Your task to perform on an android device: toggle notification dots Image 0: 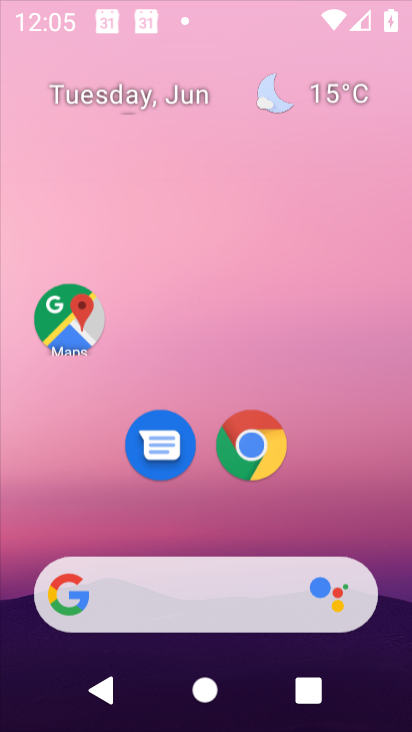
Step 0: click (222, 66)
Your task to perform on an android device: toggle notification dots Image 1: 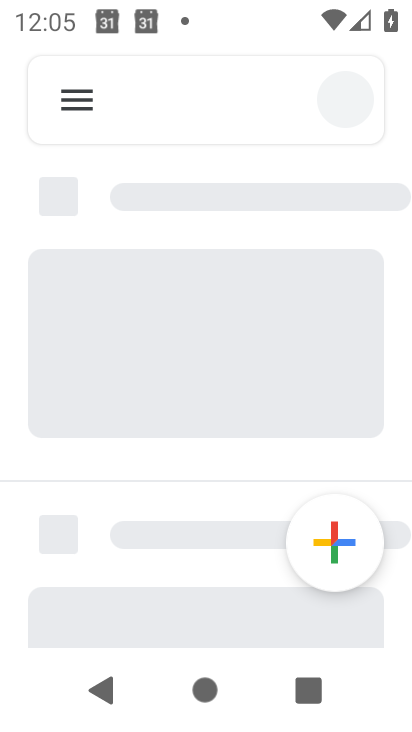
Step 1: drag from (81, 494) to (110, 78)
Your task to perform on an android device: toggle notification dots Image 2: 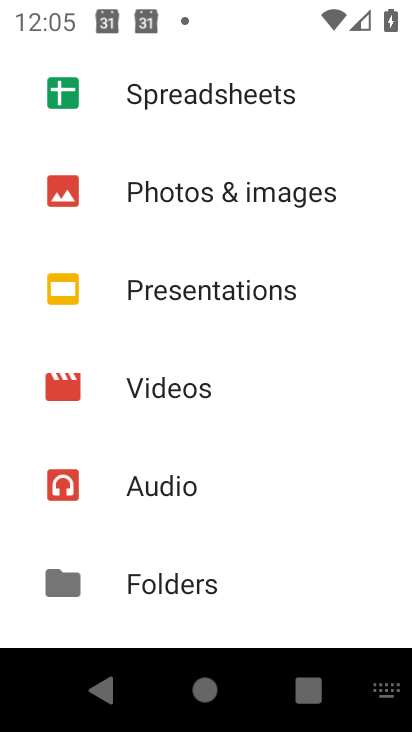
Step 2: press home button
Your task to perform on an android device: toggle notification dots Image 3: 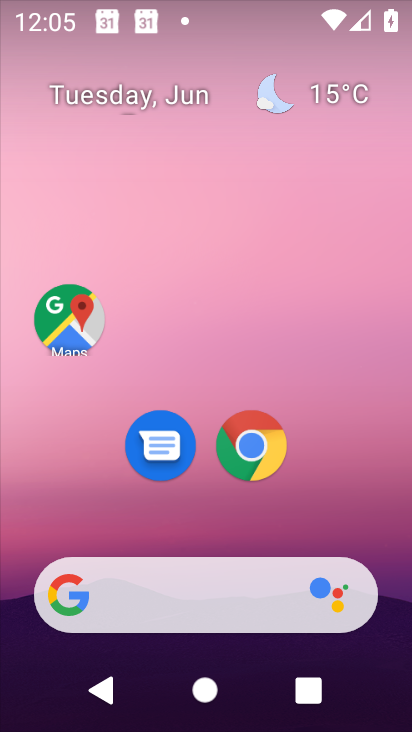
Step 3: drag from (183, 498) to (204, 37)
Your task to perform on an android device: toggle notification dots Image 4: 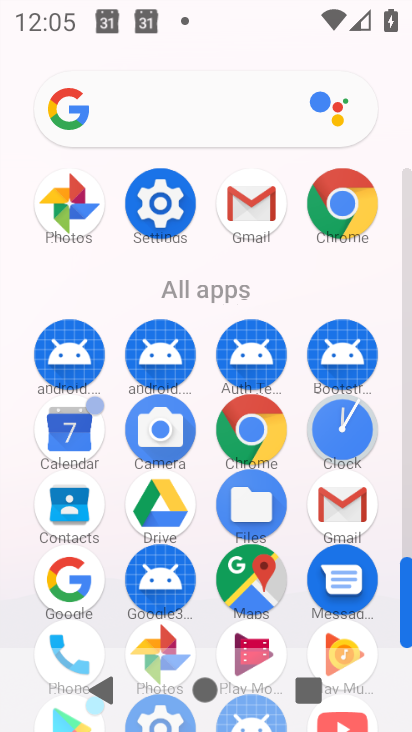
Step 4: click (147, 207)
Your task to perform on an android device: toggle notification dots Image 5: 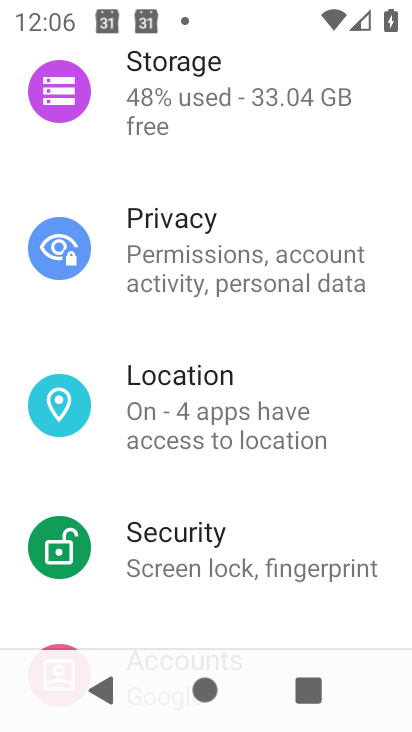
Step 5: drag from (171, 125) to (159, 518)
Your task to perform on an android device: toggle notification dots Image 6: 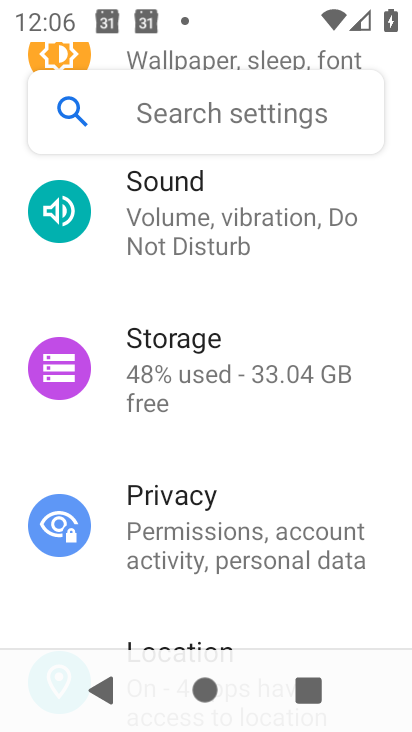
Step 6: drag from (113, 226) to (104, 617)
Your task to perform on an android device: toggle notification dots Image 7: 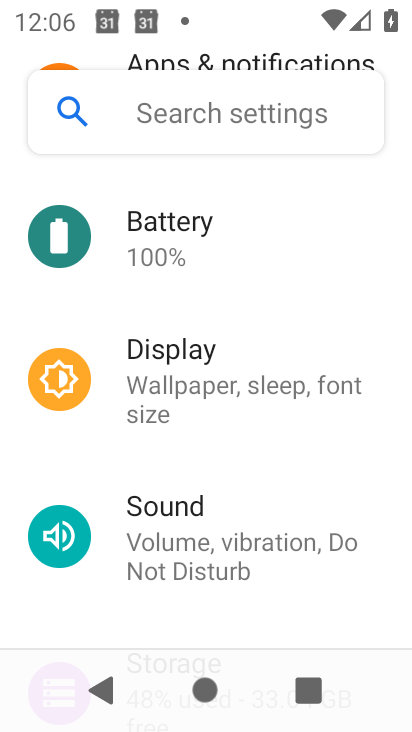
Step 7: drag from (147, 191) to (130, 592)
Your task to perform on an android device: toggle notification dots Image 8: 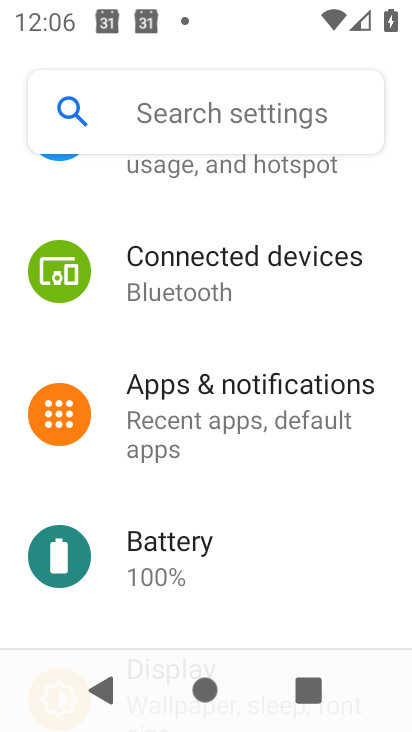
Step 8: click (117, 393)
Your task to perform on an android device: toggle notification dots Image 9: 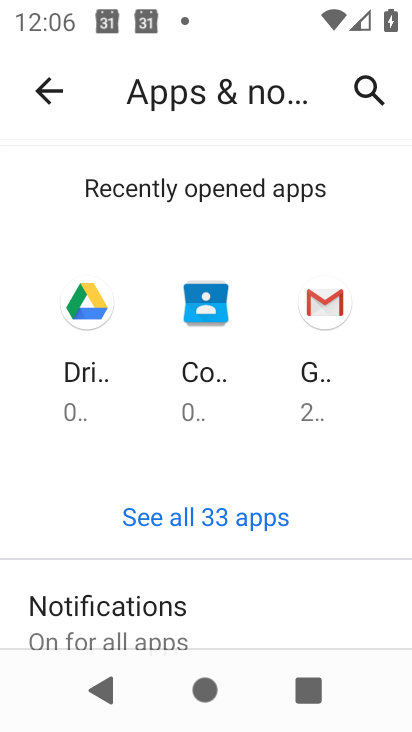
Step 9: drag from (97, 584) to (155, 79)
Your task to perform on an android device: toggle notification dots Image 10: 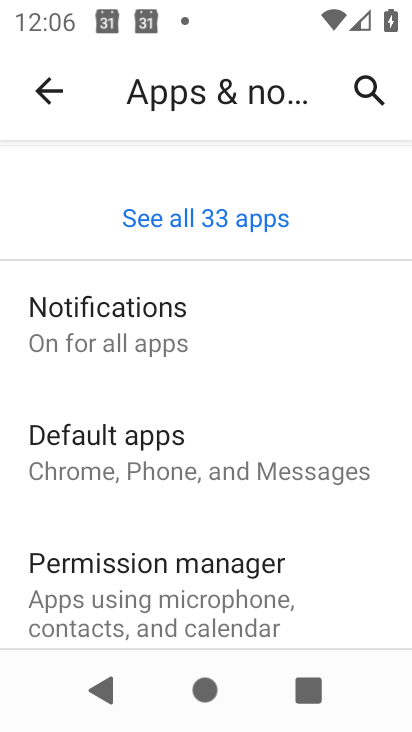
Step 10: click (151, 326)
Your task to perform on an android device: toggle notification dots Image 11: 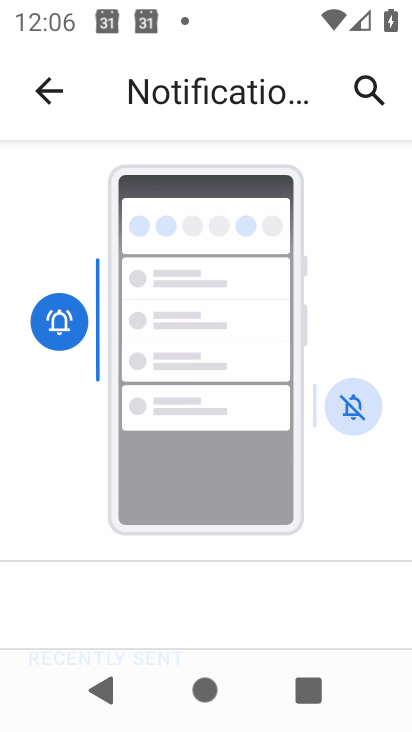
Step 11: drag from (155, 591) to (173, 20)
Your task to perform on an android device: toggle notification dots Image 12: 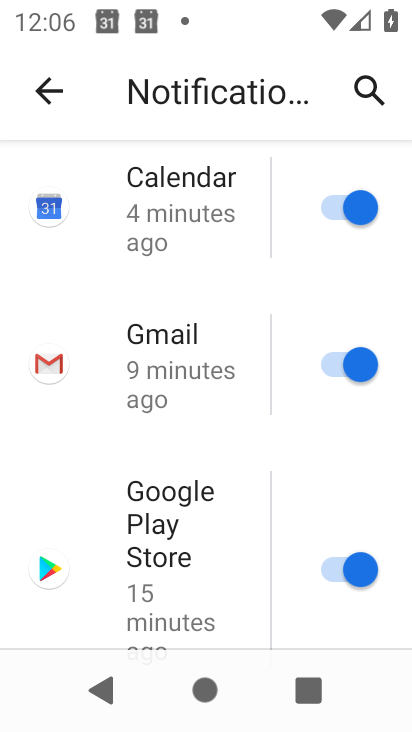
Step 12: drag from (159, 589) to (210, 134)
Your task to perform on an android device: toggle notification dots Image 13: 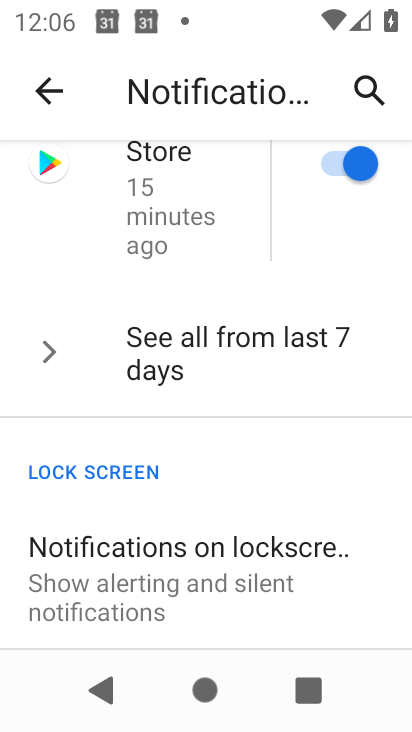
Step 13: drag from (46, 624) to (139, 42)
Your task to perform on an android device: toggle notification dots Image 14: 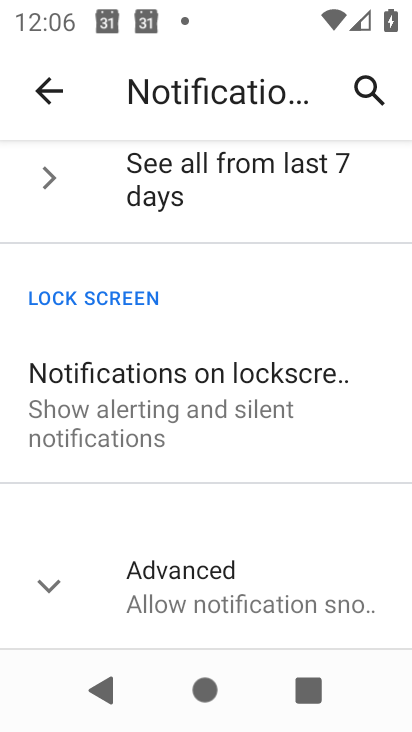
Step 14: click (201, 618)
Your task to perform on an android device: toggle notification dots Image 15: 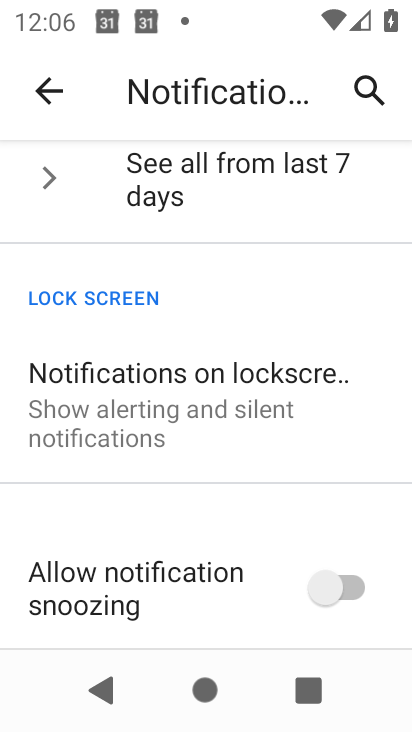
Step 15: drag from (201, 618) to (217, 58)
Your task to perform on an android device: toggle notification dots Image 16: 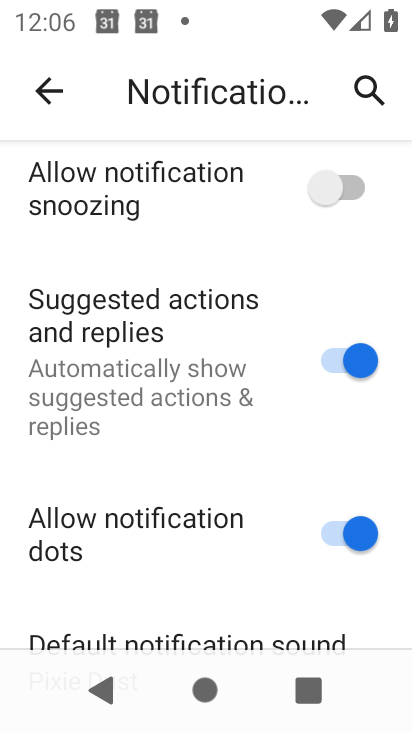
Step 16: click (326, 540)
Your task to perform on an android device: toggle notification dots Image 17: 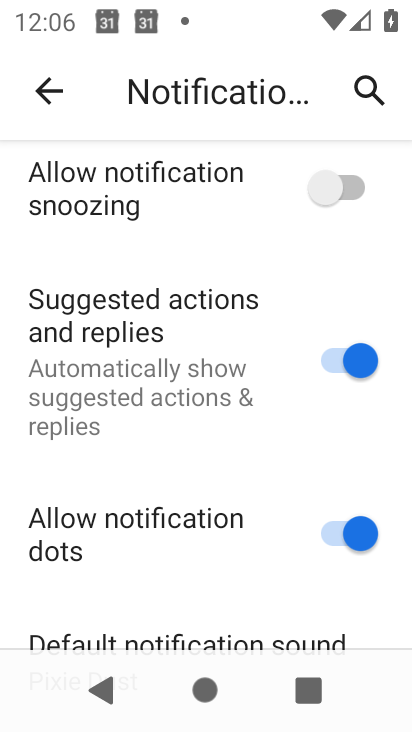
Step 17: click (326, 540)
Your task to perform on an android device: toggle notification dots Image 18: 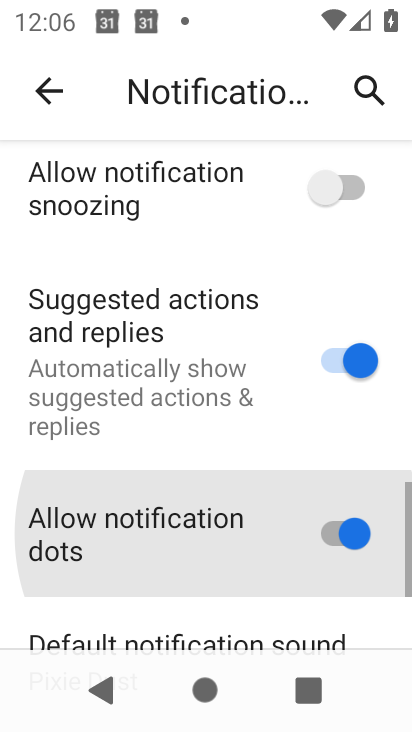
Step 18: click (326, 540)
Your task to perform on an android device: toggle notification dots Image 19: 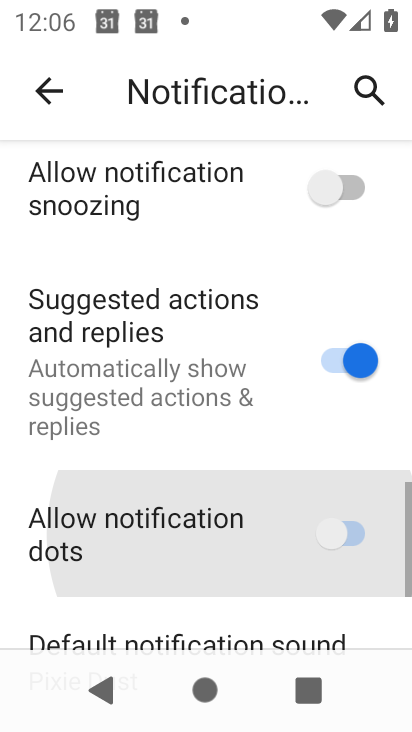
Step 19: click (326, 540)
Your task to perform on an android device: toggle notification dots Image 20: 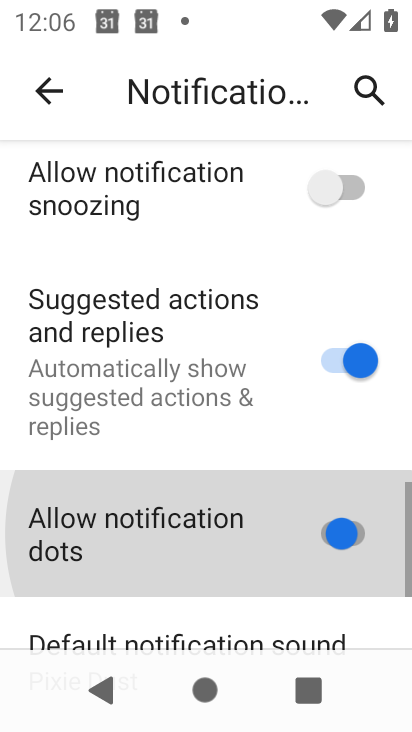
Step 20: click (326, 540)
Your task to perform on an android device: toggle notification dots Image 21: 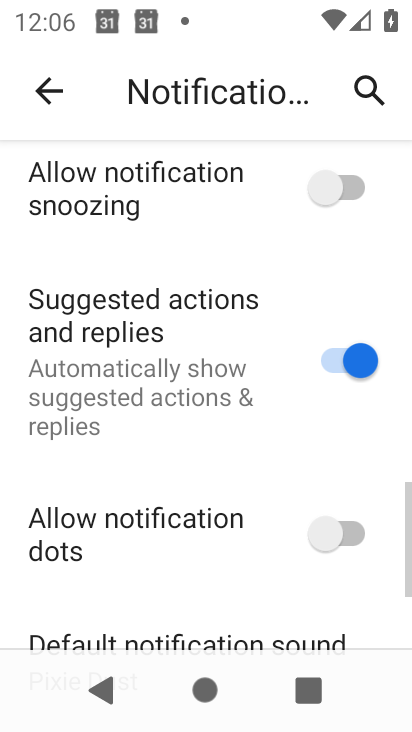
Step 21: click (326, 540)
Your task to perform on an android device: toggle notification dots Image 22: 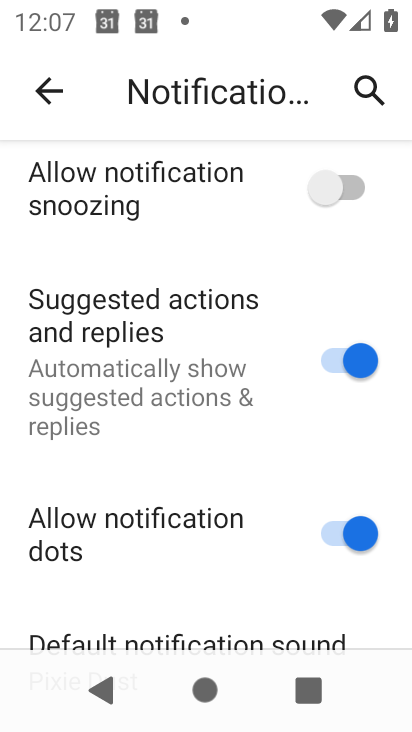
Step 22: task complete